Your task to perform on an android device: turn off notifications settings in the gmail app Image 0: 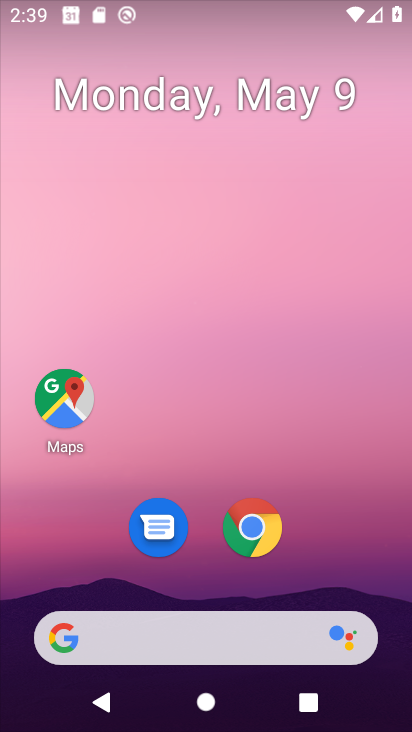
Step 0: drag from (302, 591) to (330, 142)
Your task to perform on an android device: turn off notifications settings in the gmail app Image 1: 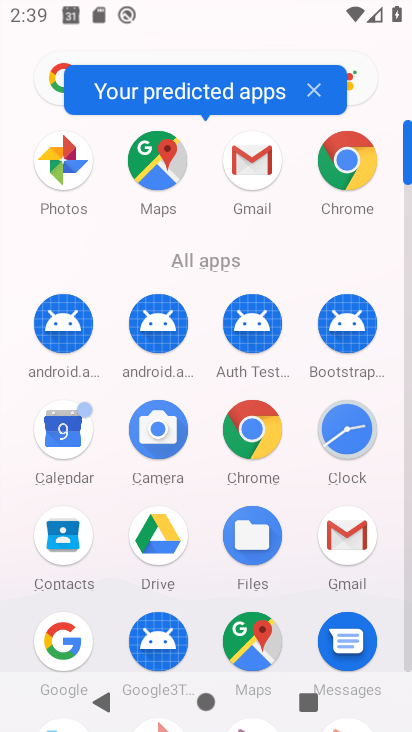
Step 1: click (334, 563)
Your task to perform on an android device: turn off notifications settings in the gmail app Image 2: 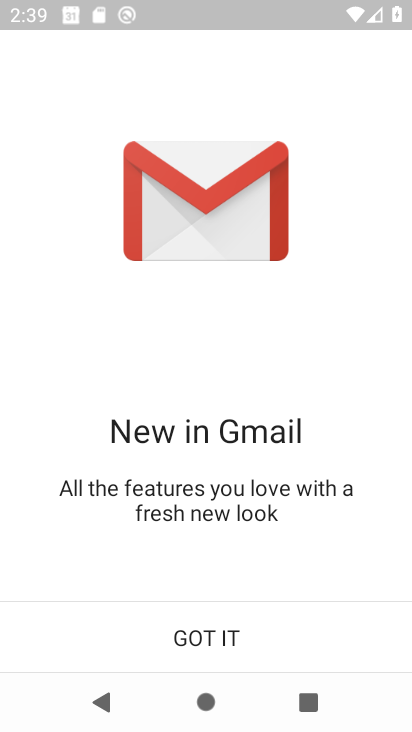
Step 2: click (273, 638)
Your task to perform on an android device: turn off notifications settings in the gmail app Image 3: 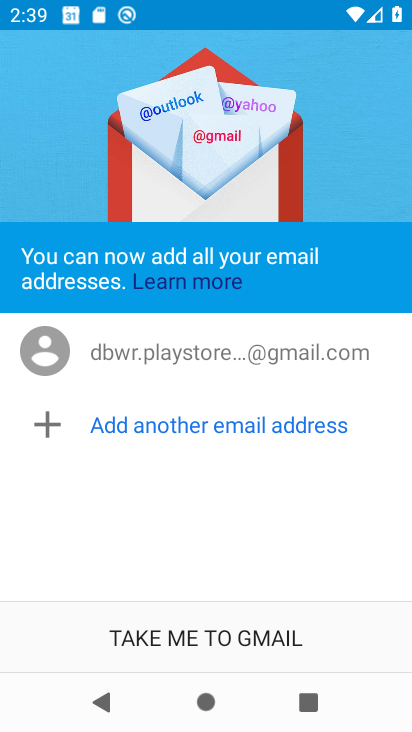
Step 3: click (178, 661)
Your task to perform on an android device: turn off notifications settings in the gmail app Image 4: 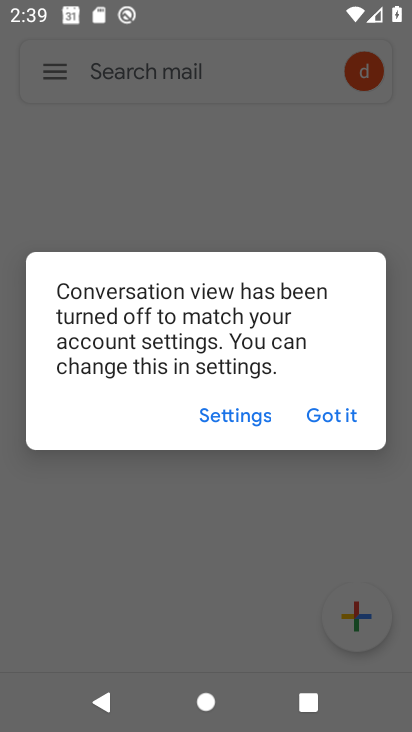
Step 4: click (339, 414)
Your task to perform on an android device: turn off notifications settings in the gmail app Image 5: 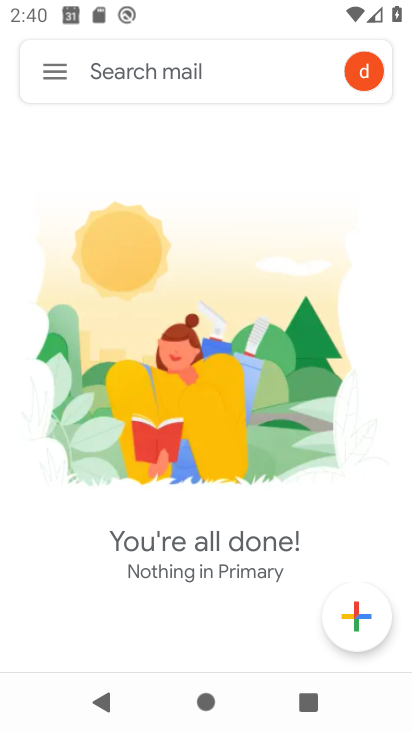
Step 5: click (64, 75)
Your task to perform on an android device: turn off notifications settings in the gmail app Image 6: 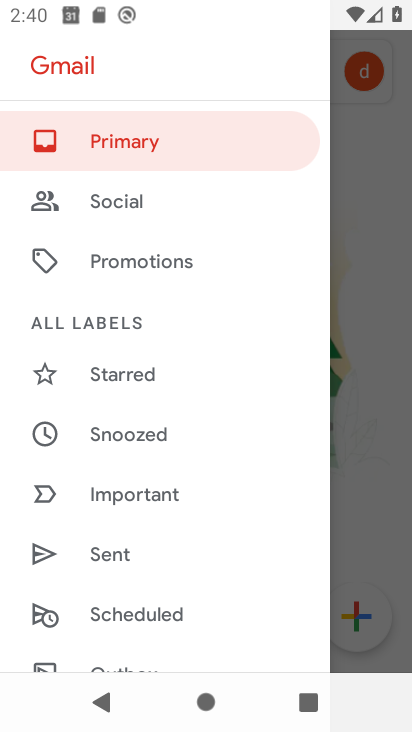
Step 6: drag from (108, 513) to (140, 302)
Your task to perform on an android device: turn off notifications settings in the gmail app Image 7: 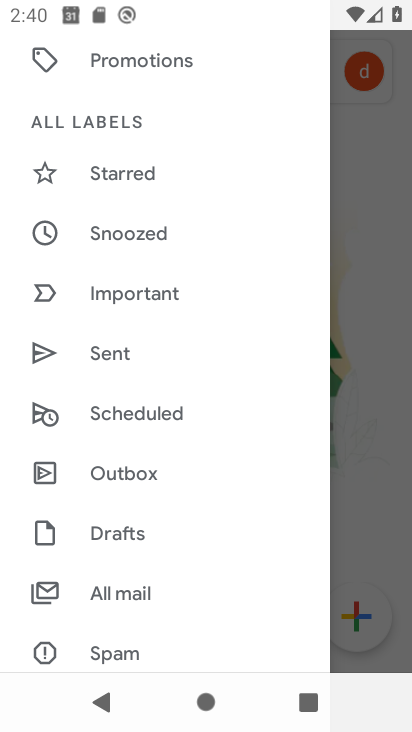
Step 7: drag from (137, 546) to (170, 297)
Your task to perform on an android device: turn off notifications settings in the gmail app Image 8: 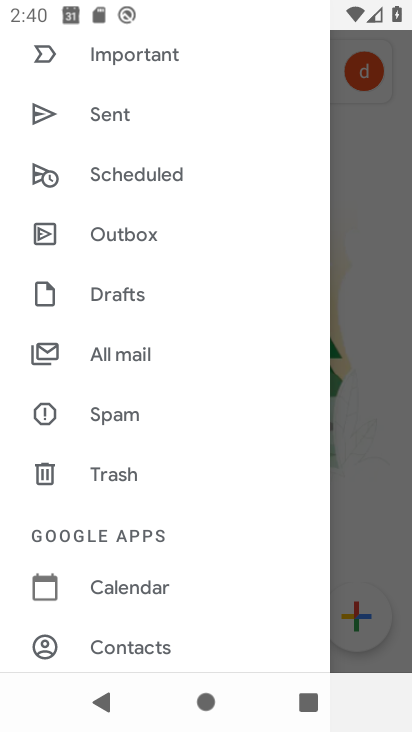
Step 8: drag from (152, 605) to (152, 362)
Your task to perform on an android device: turn off notifications settings in the gmail app Image 9: 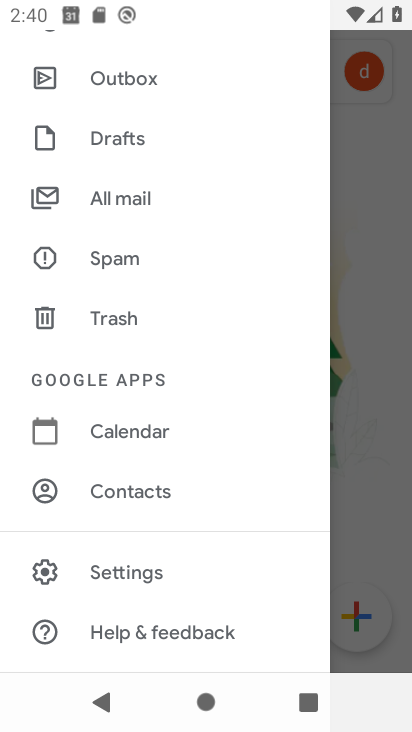
Step 9: click (134, 566)
Your task to perform on an android device: turn off notifications settings in the gmail app Image 10: 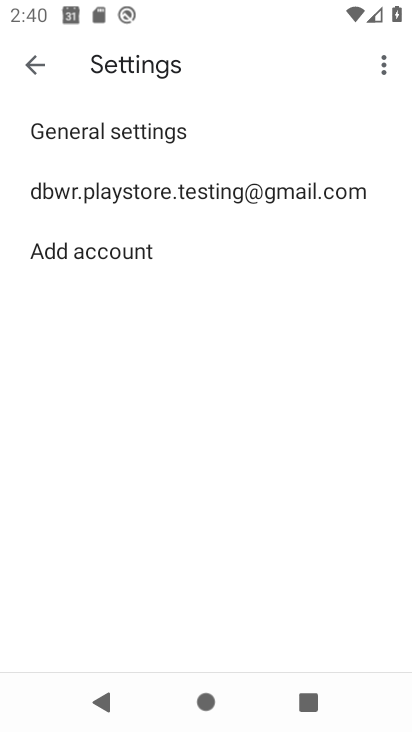
Step 10: click (160, 132)
Your task to perform on an android device: turn off notifications settings in the gmail app Image 11: 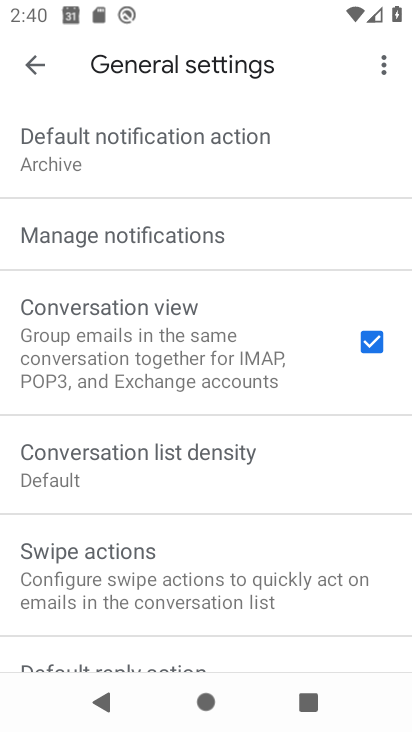
Step 11: click (158, 239)
Your task to perform on an android device: turn off notifications settings in the gmail app Image 12: 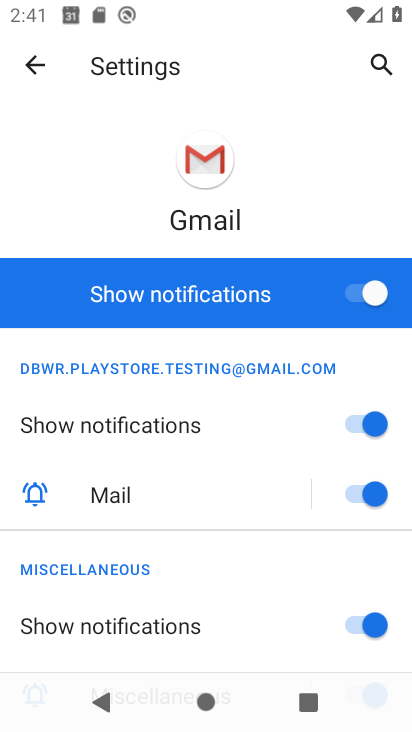
Step 12: click (347, 294)
Your task to perform on an android device: turn off notifications settings in the gmail app Image 13: 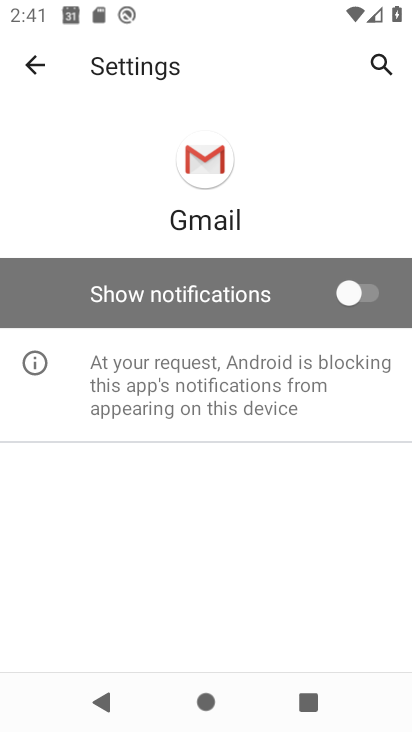
Step 13: task complete